Your task to perform on an android device: open device folders in google photos Image 0: 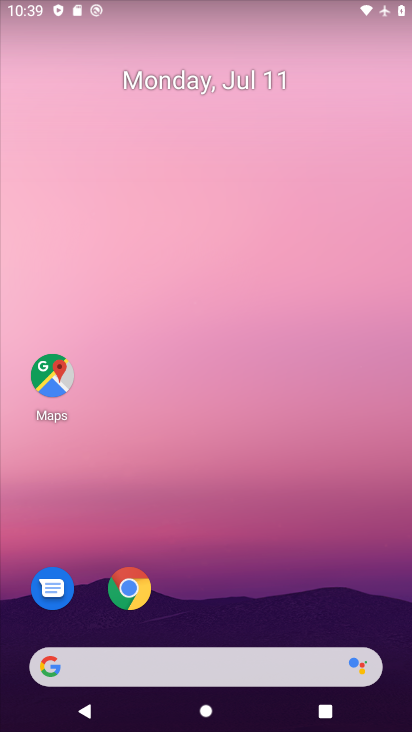
Step 0: click (134, 589)
Your task to perform on an android device: open device folders in google photos Image 1: 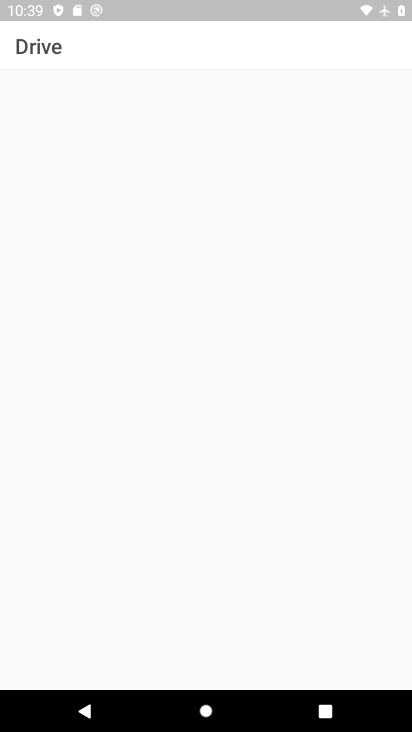
Step 1: press home button
Your task to perform on an android device: open device folders in google photos Image 2: 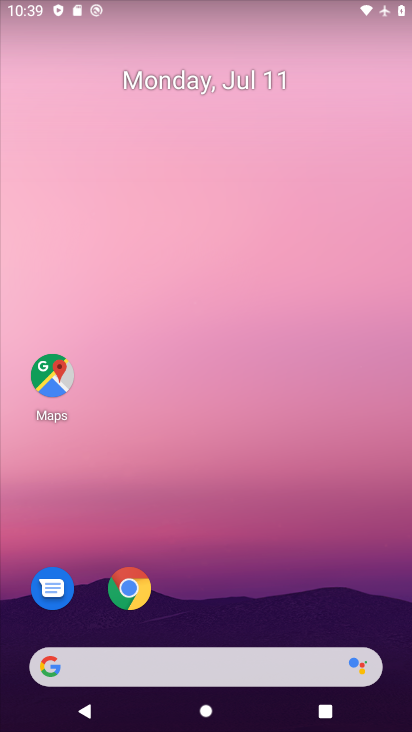
Step 2: drag from (170, 665) to (224, 164)
Your task to perform on an android device: open device folders in google photos Image 3: 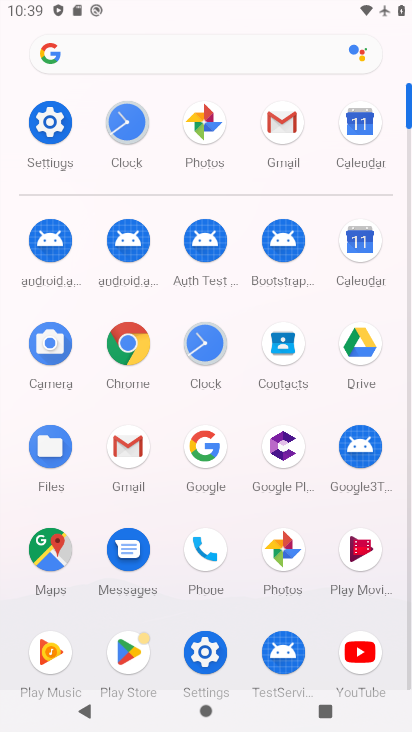
Step 3: click (285, 549)
Your task to perform on an android device: open device folders in google photos Image 4: 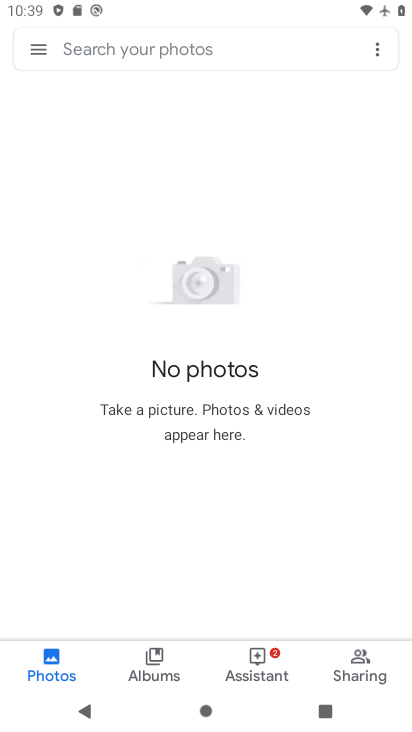
Step 4: click (38, 47)
Your task to perform on an android device: open device folders in google photos Image 5: 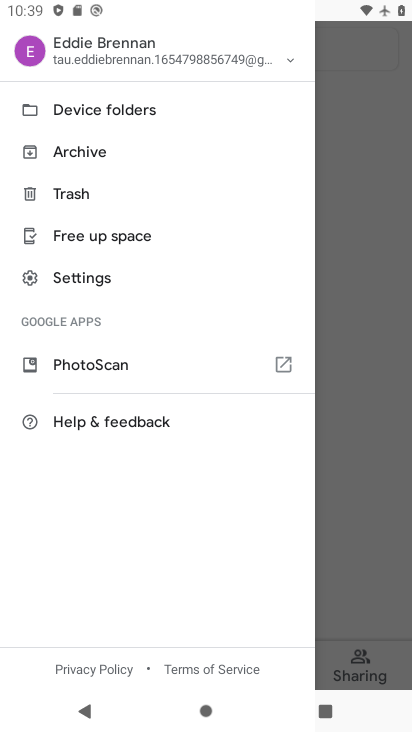
Step 5: click (76, 112)
Your task to perform on an android device: open device folders in google photos Image 6: 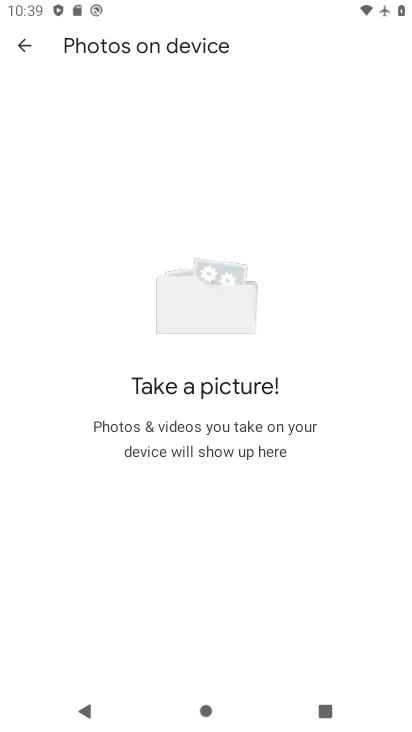
Step 6: task complete